Your task to perform on an android device: Open Amazon Image 0: 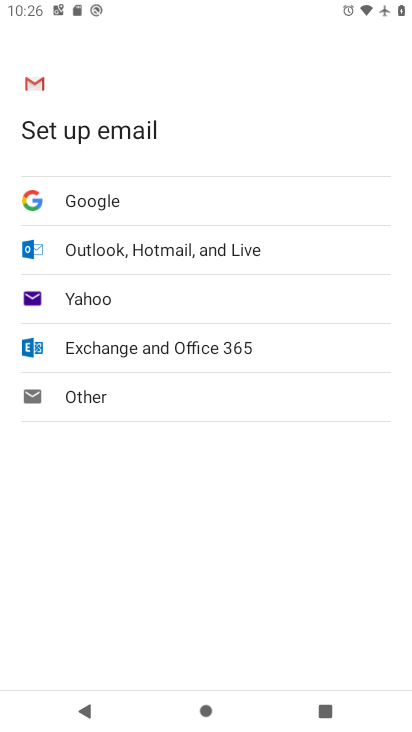
Step 0: press home button
Your task to perform on an android device: Open Amazon Image 1: 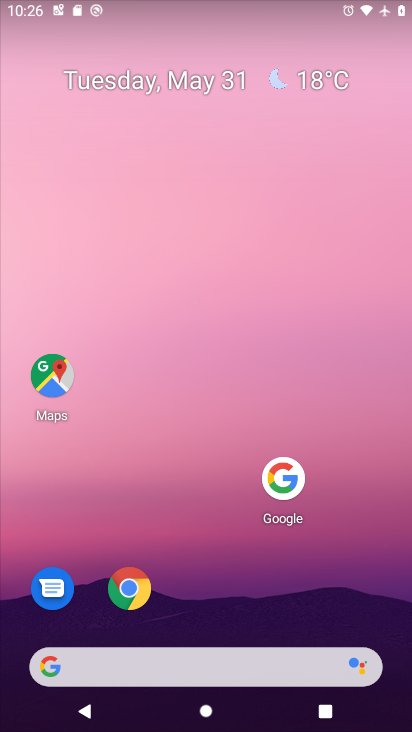
Step 1: click (136, 591)
Your task to perform on an android device: Open Amazon Image 2: 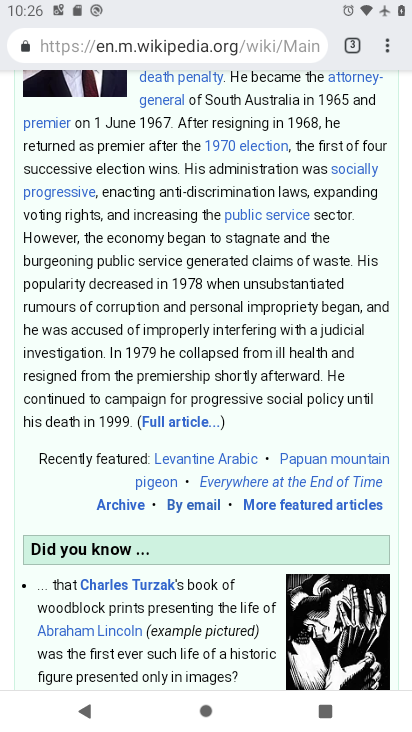
Step 2: drag from (381, 39) to (254, 90)
Your task to perform on an android device: Open Amazon Image 3: 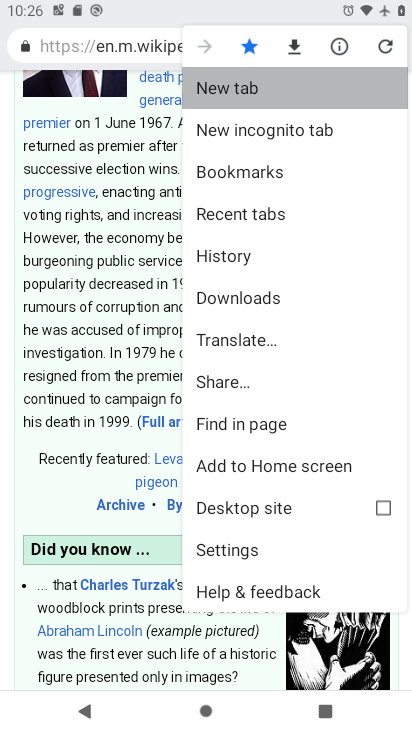
Step 3: click (254, 90)
Your task to perform on an android device: Open Amazon Image 4: 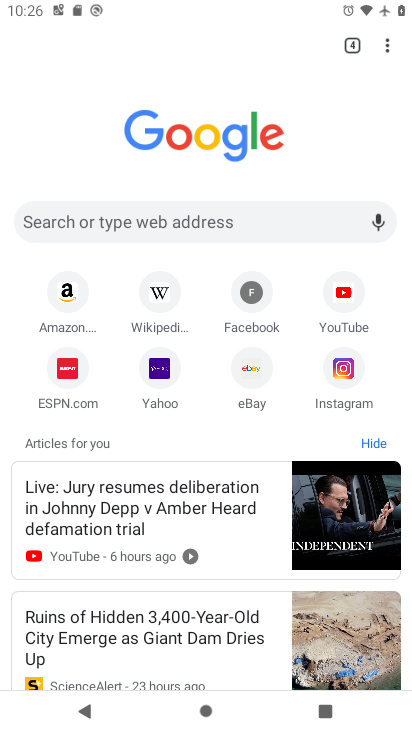
Step 4: click (65, 291)
Your task to perform on an android device: Open Amazon Image 5: 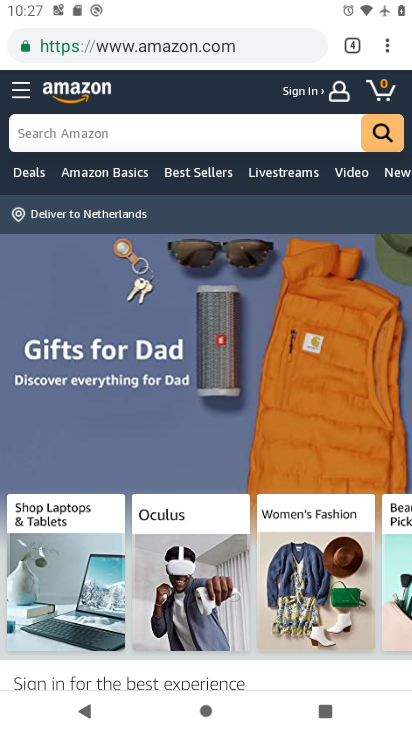
Step 5: task complete